Your task to perform on an android device: Show me the alarms in the clock app Image 0: 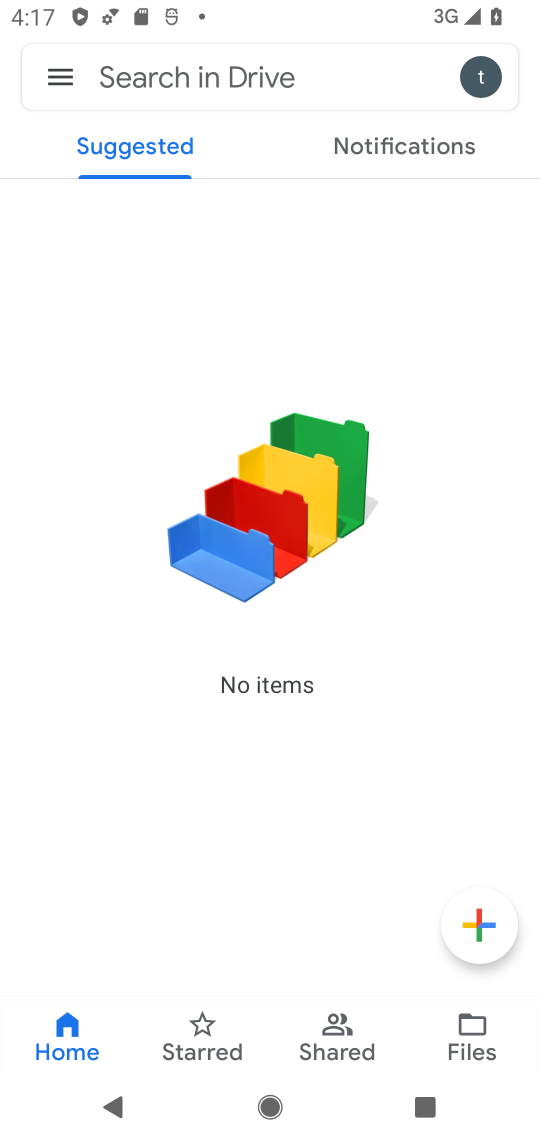
Step 0: press home button
Your task to perform on an android device: Show me the alarms in the clock app Image 1: 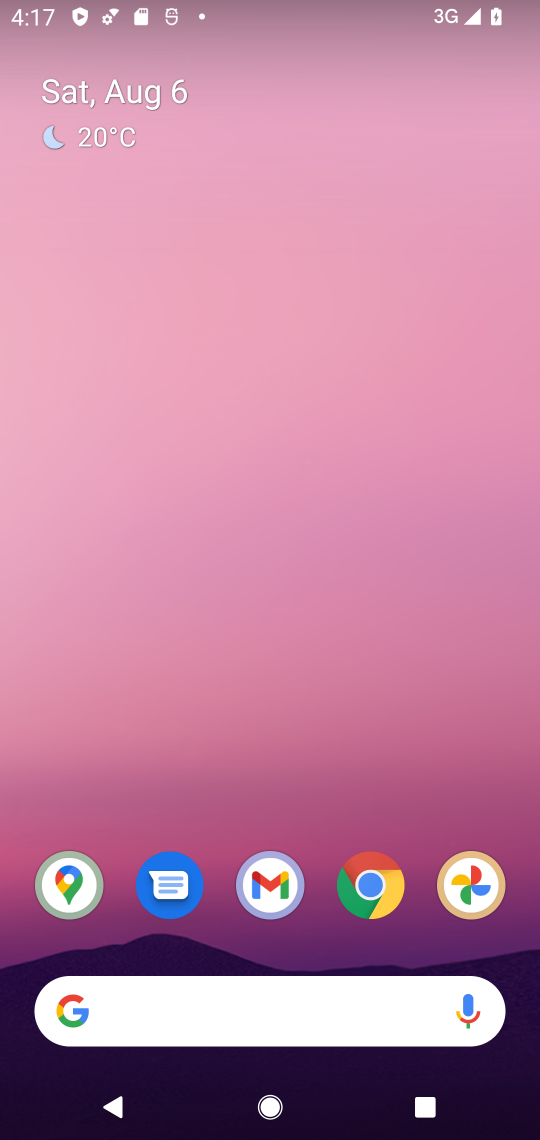
Step 1: drag from (473, 985) to (71, 171)
Your task to perform on an android device: Show me the alarms in the clock app Image 2: 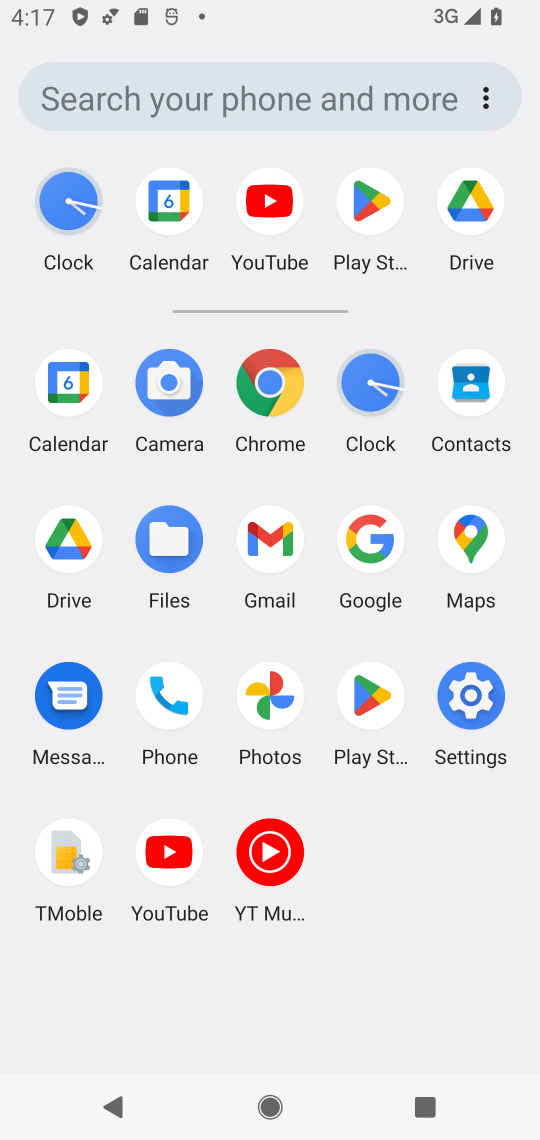
Step 2: click (375, 399)
Your task to perform on an android device: Show me the alarms in the clock app Image 3: 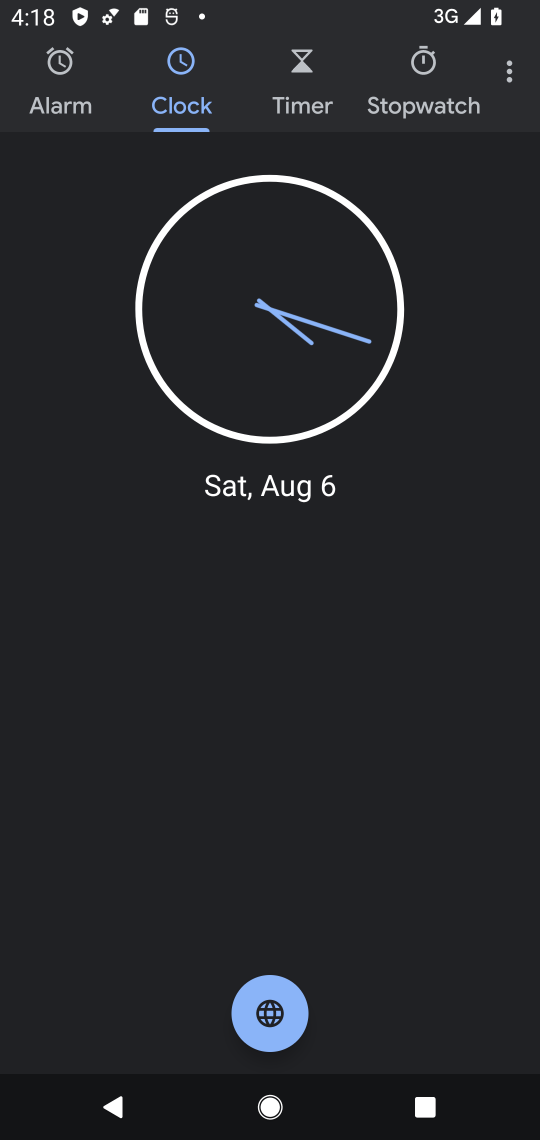
Step 3: click (51, 87)
Your task to perform on an android device: Show me the alarms in the clock app Image 4: 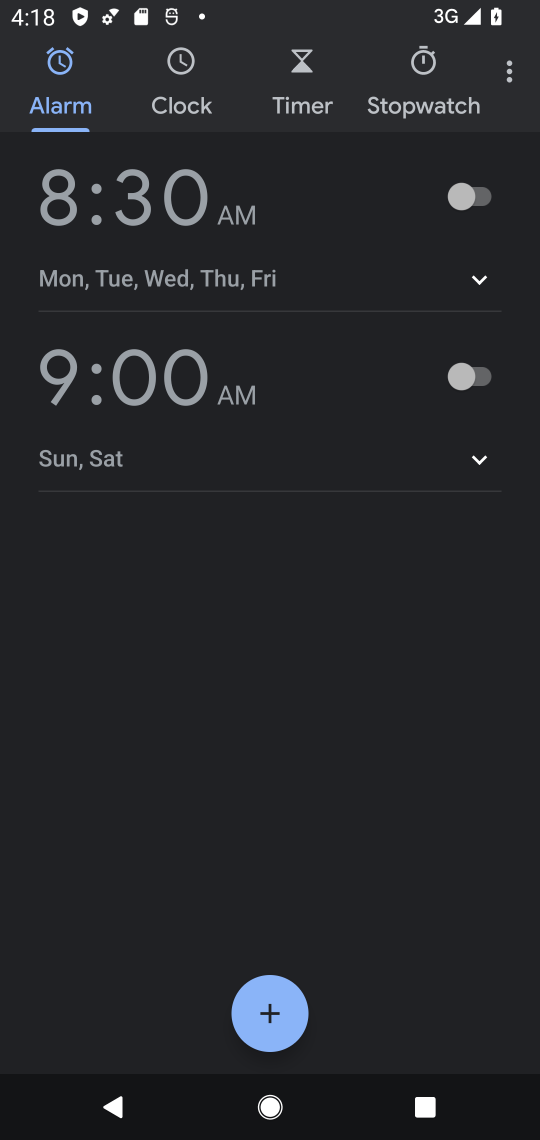
Step 4: task complete